Your task to perform on an android device: Go to privacy settings Image 0: 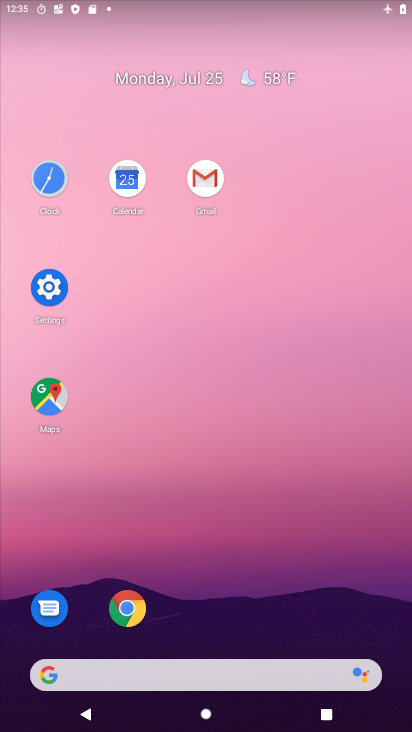
Step 0: click (66, 296)
Your task to perform on an android device: Go to privacy settings Image 1: 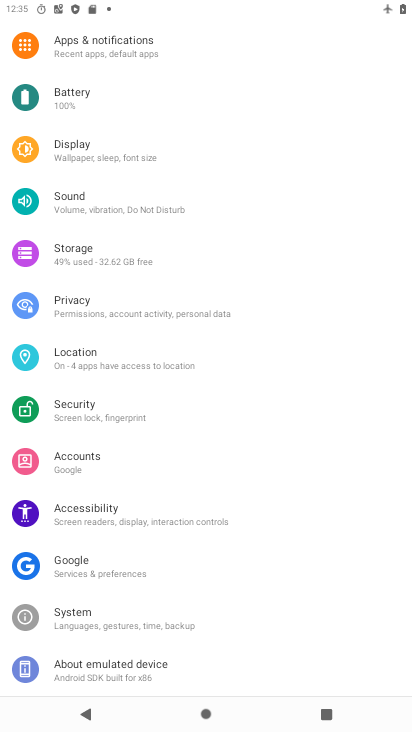
Step 1: click (121, 309)
Your task to perform on an android device: Go to privacy settings Image 2: 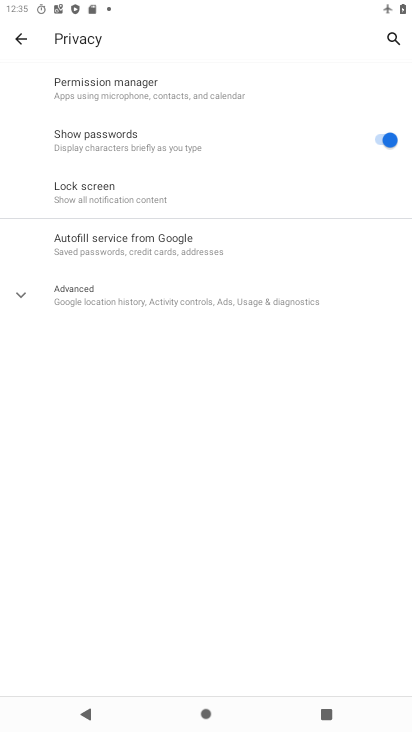
Step 2: task complete